Your task to perform on an android device: turn on notifications settings in the gmail app Image 0: 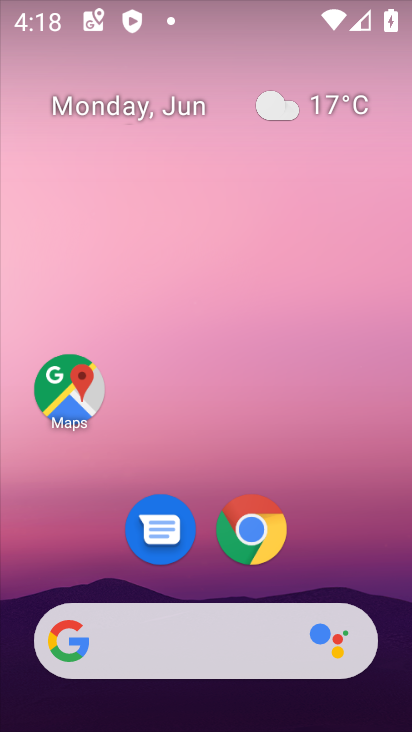
Step 0: drag from (336, 528) to (206, 46)
Your task to perform on an android device: turn on notifications settings in the gmail app Image 1: 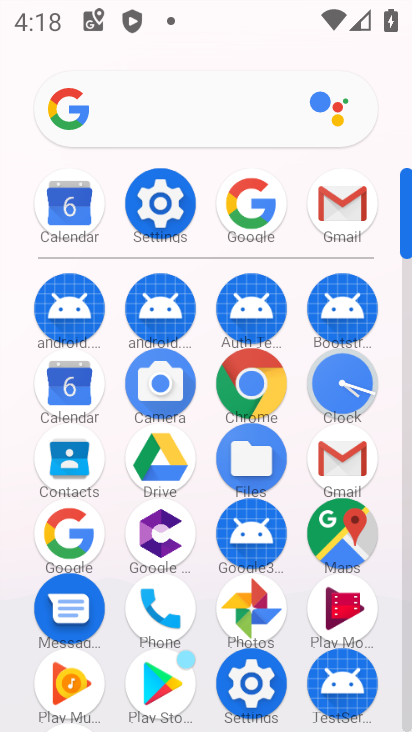
Step 1: click (336, 206)
Your task to perform on an android device: turn on notifications settings in the gmail app Image 2: 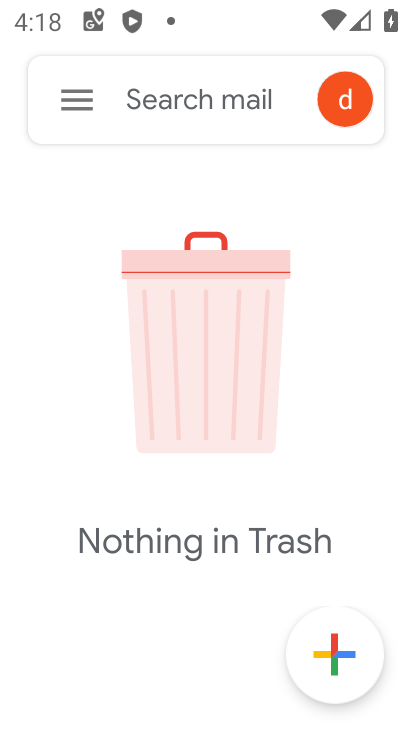
Step 2: click (73, 98)
Your task to perform on an android device: turn on notifications settings in the gmail app Image 3: 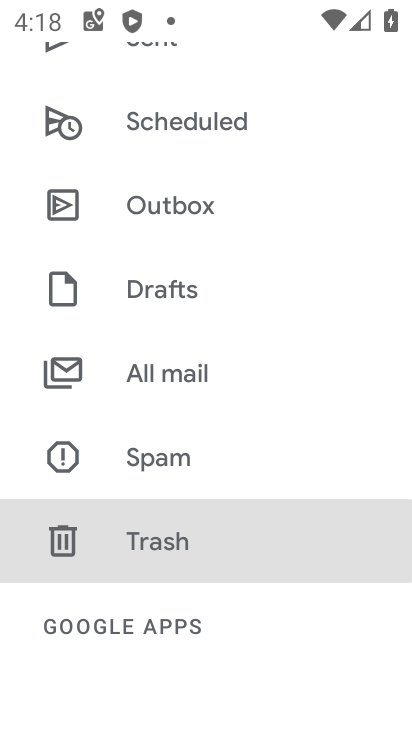
Step 3: drag from (195, 647) to (314, 164)
Your task to perform on an android device: turn on notifications settings in the gmail app Image 4: 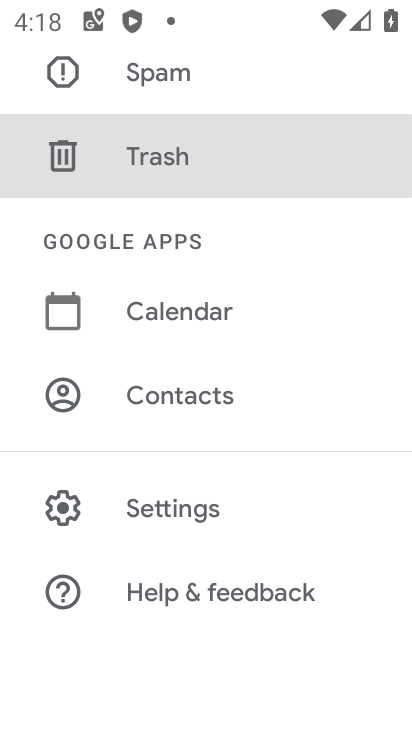
Step 4: click (200, 523)
Your task to perform on an android device: turn on notifications settings in the gmail app Image 5: 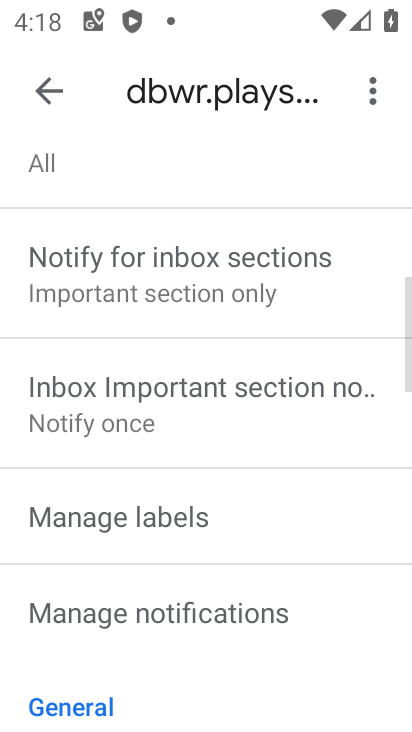
Step 5: click (148, 607)
Your task to perform on an android device: turn on notifications settings in the gmail app Image 6: 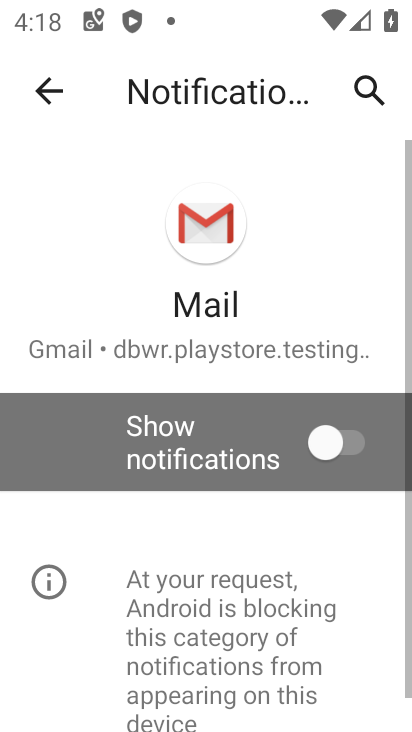
Step 6: click (348, 453)
Your task to perform on an android device: turn on notifications settings in the gmail app Image 7: 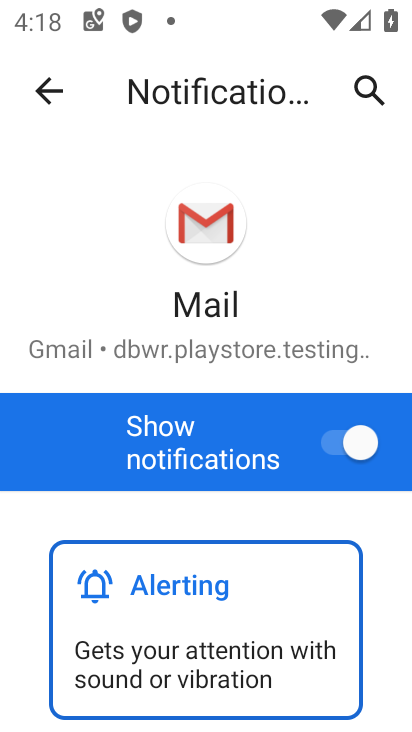
Step 7: task complete